Your task to perform on an android device: Go to CNN.com Image 0: 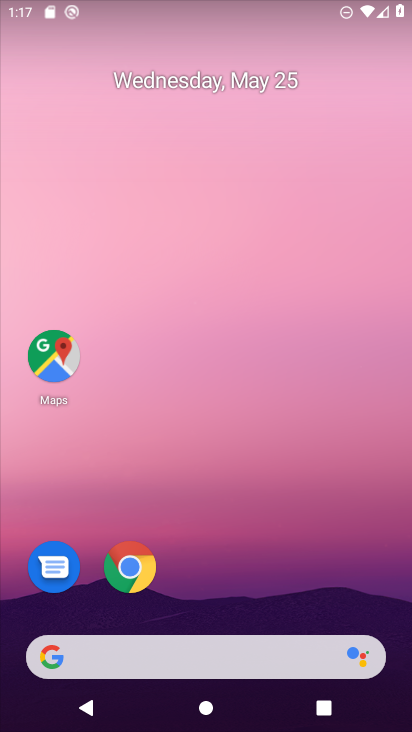
Step 0: click (140, 569)
Your task to perform on an android device: Go to CNN.com Image 1: 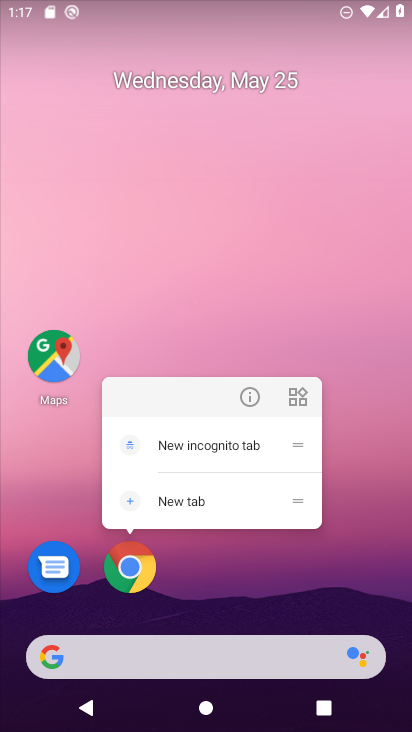
Step 1: click (140, 569)
Your task to perform on an android device: Go to CNN.com Image 2: 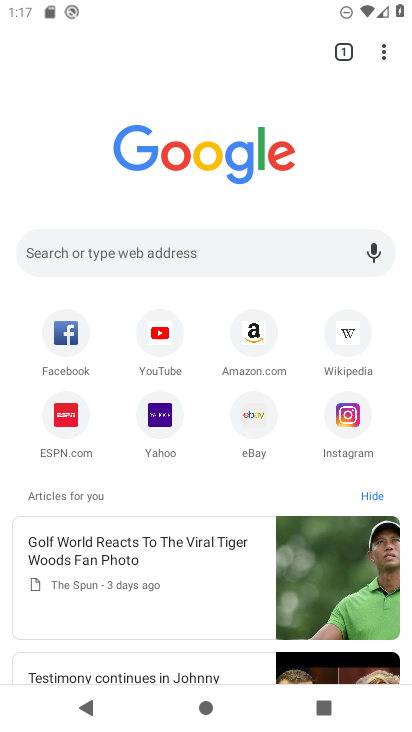
Step 2: click (195, 231)
Your task to perform on an android device: Go to CNN.com Image 3: 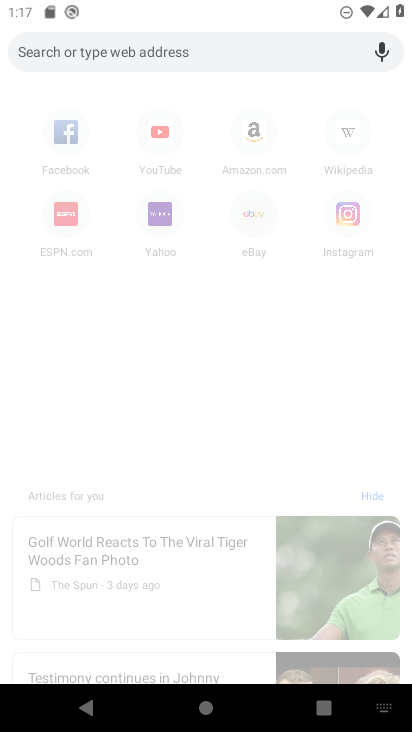
Step 3: type "cnn.com"
Your task to perform on an android device: Go to CNN.com Image 4: 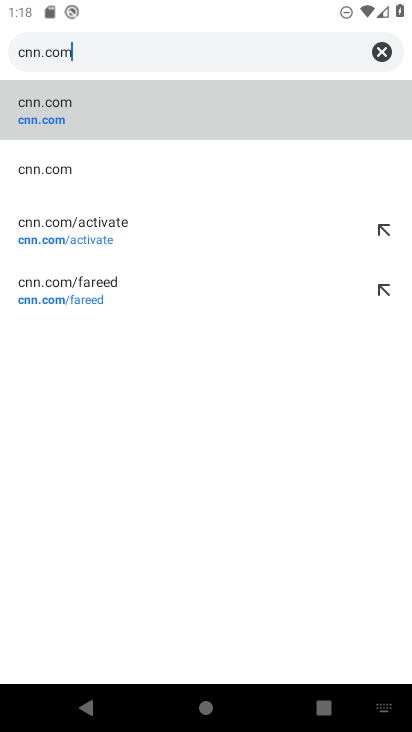
Step 4: click (63, 110)
Your task to perform on an android device: Go to CNN.com Image 5: 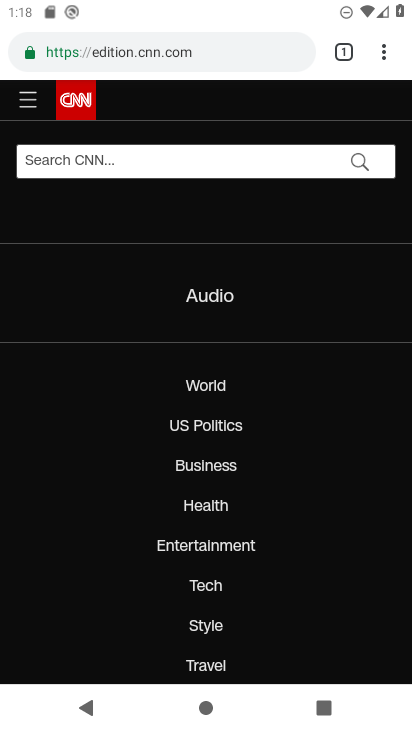
Step 5: task complete